Your task to perform on an android device: What's the weather going to be this weekend? Image 0: 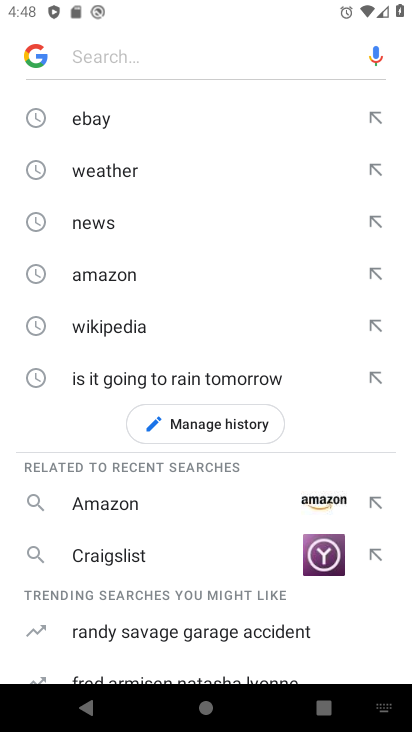
Step 0: click (100, 172)
Your task to perform on an android device: What's the weather going to be this weekend? Image 1: 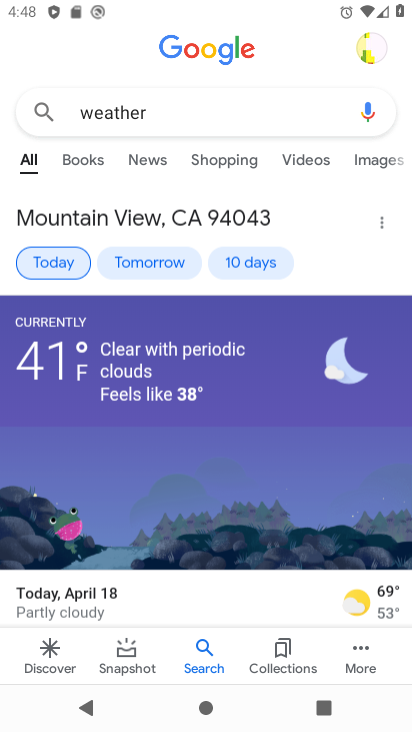
Step 1: drag from (182, 593) to (201, 456)
Your task to perform on an android device: What's the weather going to be this weekend? Image 2: 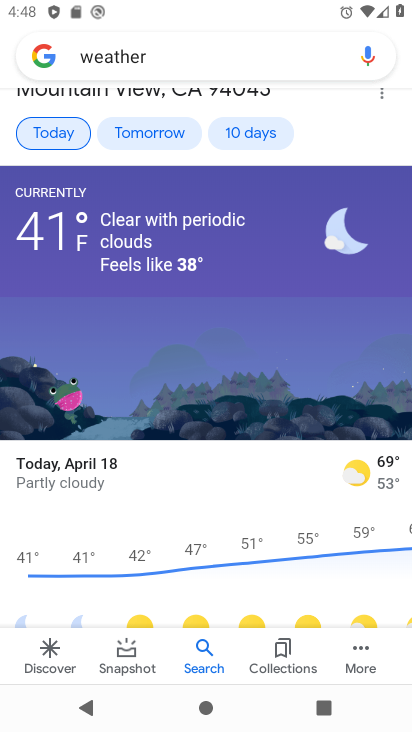
Step 2: drag from (187, 522) to (220, 357)
Your task to perform on an android device: What's the weather going to be this weekend? Image 3: 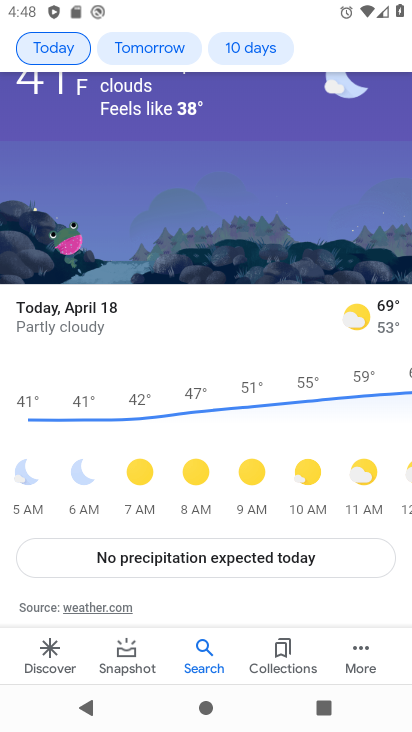
Step 3: drag from (180, 514) to (213, 358)
Your task to perform on an android device: What's the weather going to be this weekend? Image 4: 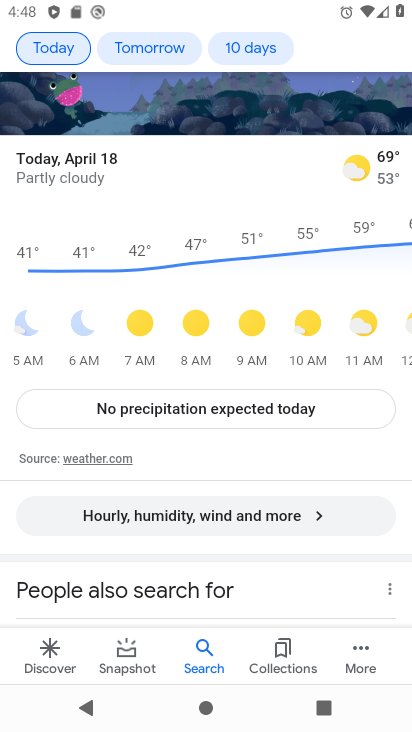
Step 4: drag from (193, 504) to (200, 407)
Your task to perform on an android device: What's the weather going to be this weekend? Image 5: 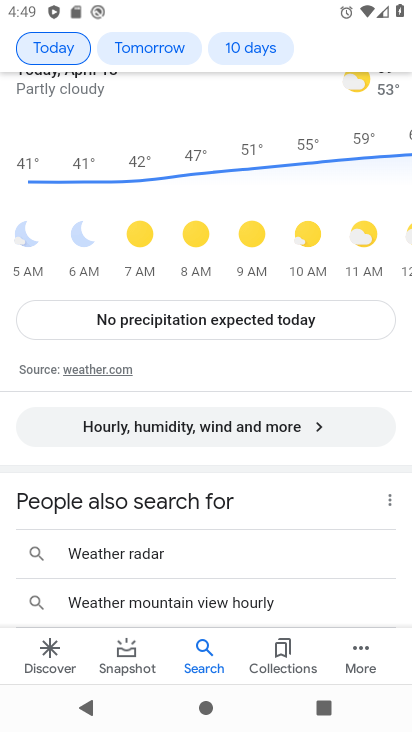
Step 5: drag from (227, 273) to (242, 485)
Your task to perform on an android device: What's the weather going to be this weekend? Image 6: 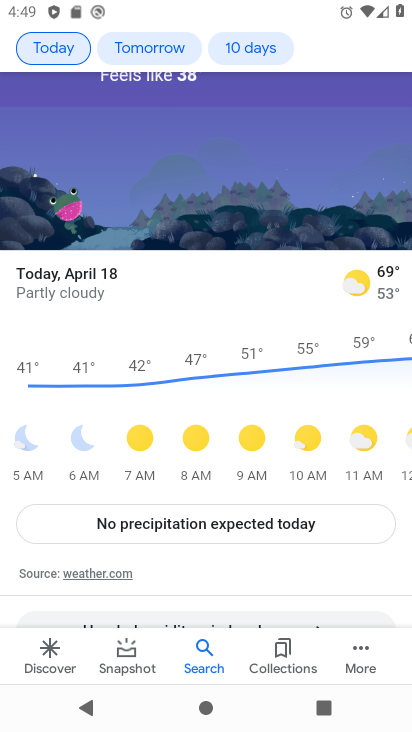
Step 6: drag from (209, 244) to (251, 398)
Your task to perform on an android device: What's the weather going to be this weekend? Image 7: 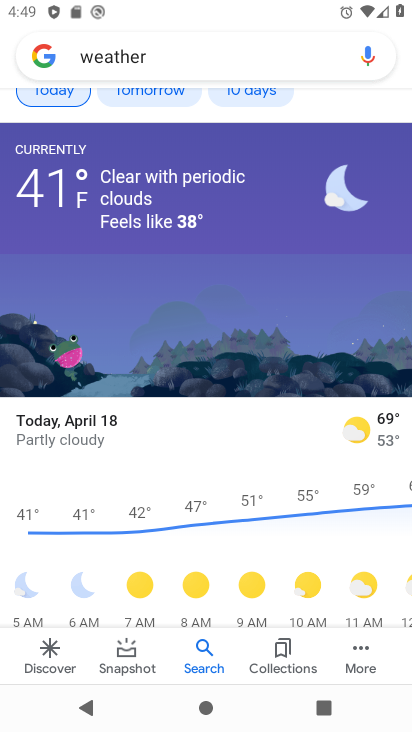
Step 7: click (246, 92)
Your task to perform on an android device: What's the weather going to be this weekend? Image 8: 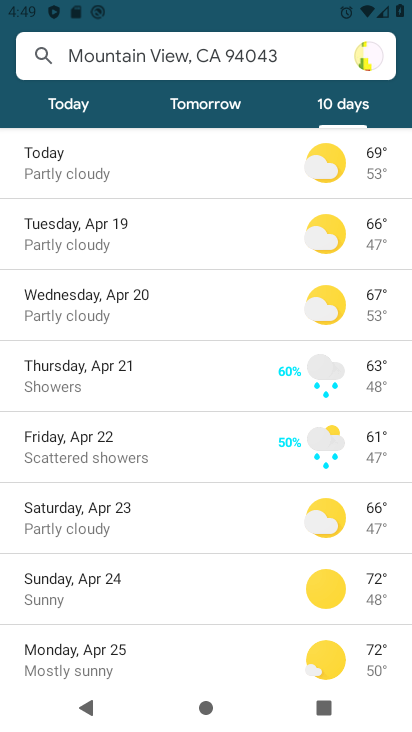
Step 8: drag from (147, 538) to (169, 396)
Your task to perform on an android device: What's the weather going to be this weekend? Image 9: 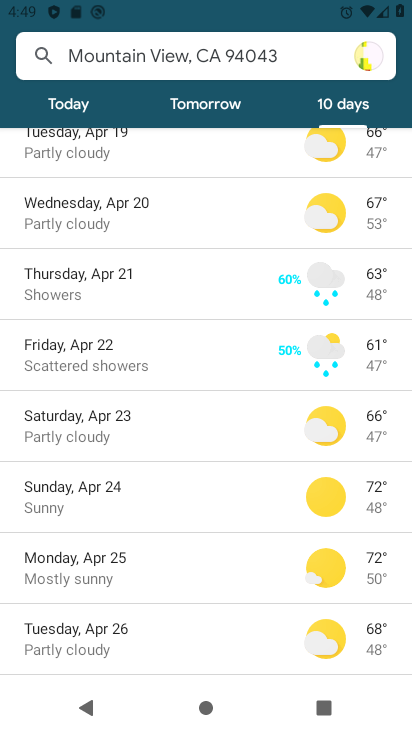
Step 9: click (141, 428)
Your task to perform on an android device: What's the weather going to be this weekend? Image 10: 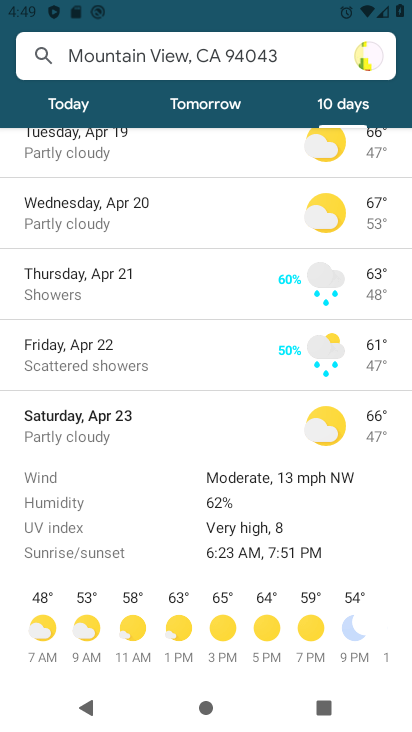
Step 10: task complete